Your task to perform on an android device: open a bookmark in the chrome app Image 0: 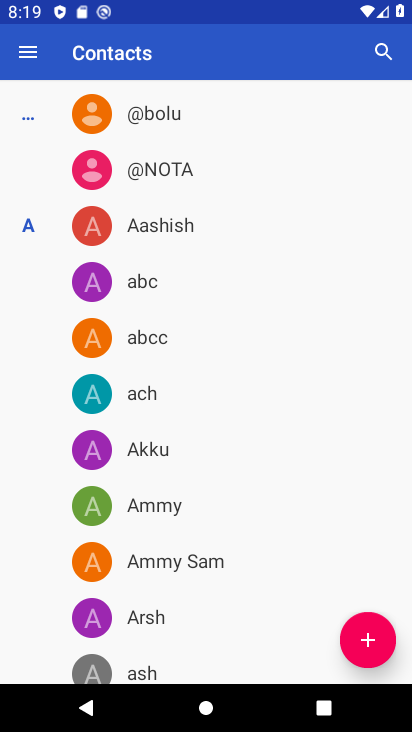
Step 0: press home button
Your task to perform on an android device: open a bookmark in the chrome app Image 1: 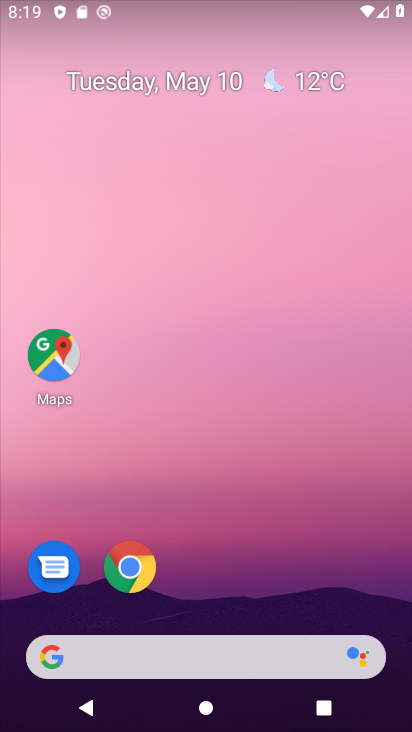
Step 1: click (127, 564)
Your task to perform on an android device: open a bookmark in the chrome app Image 2: 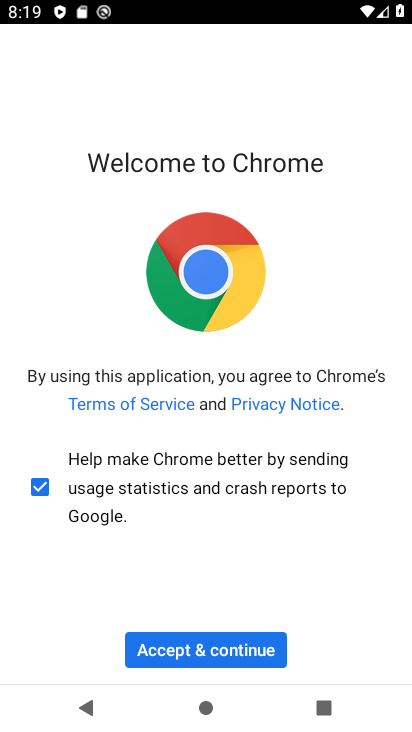
Step 2: click (147, 656)
Your task to perform on an android device: open a bookmark in the chrome app Image 3: 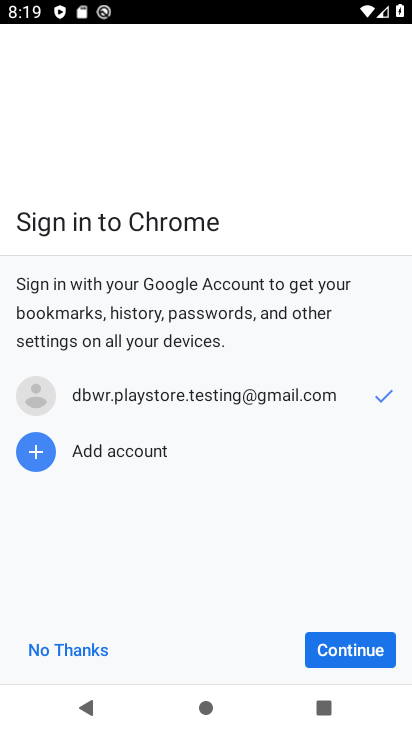
Step 3: click (370, 634)
Your task to perform on an android device: open a bookmark in the chrome app Image 4: 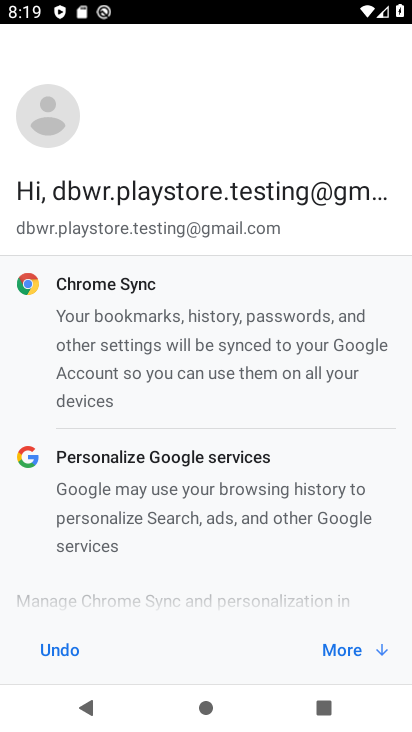
Step 4: click (358, 654)
Your task to perform on an android device: open a bookmark in the chrome app Image 5: 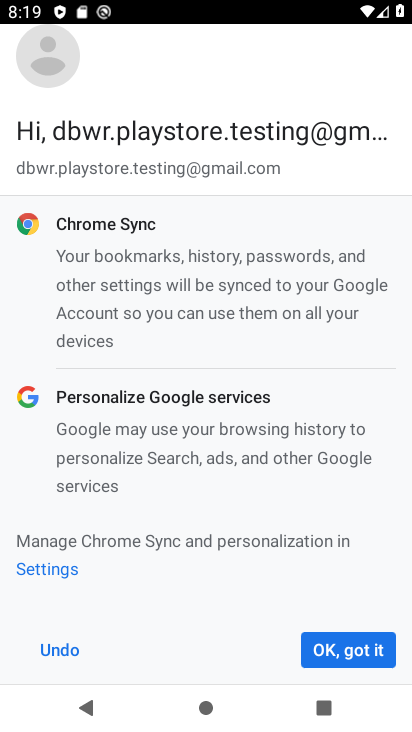
Step 5: click (358, 654)
Your task to perform on an android device: open a bookmark in the chrome app Image 6: 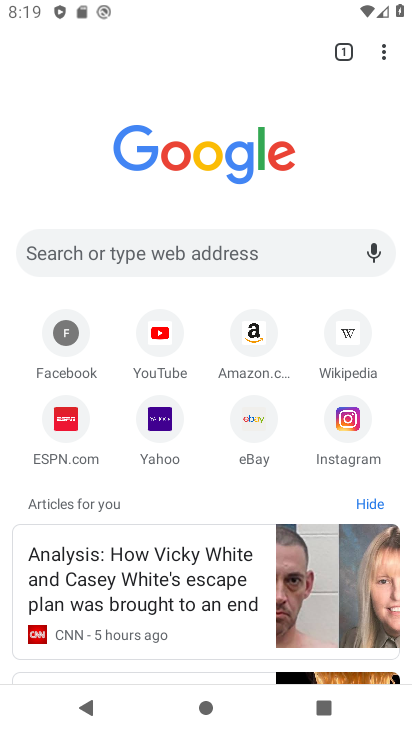
Step 6: click (387, 51)
Your task to perform on an android device: open a bookmark in the chrome app Image 7: 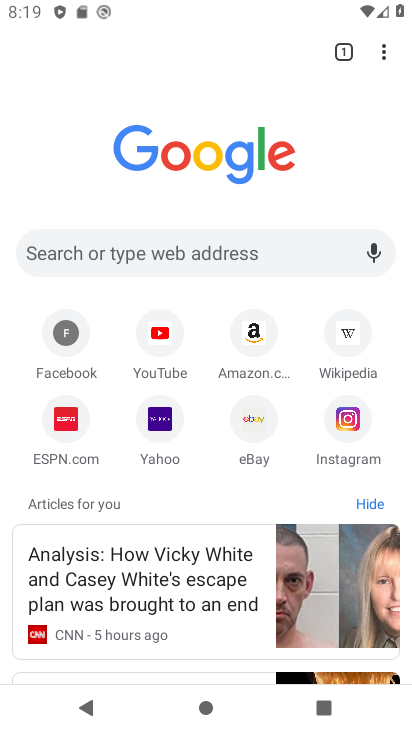
Step 7: click (387, 51)
Your task to perform on an android device: open a bookmark in the chrome app Image 8: 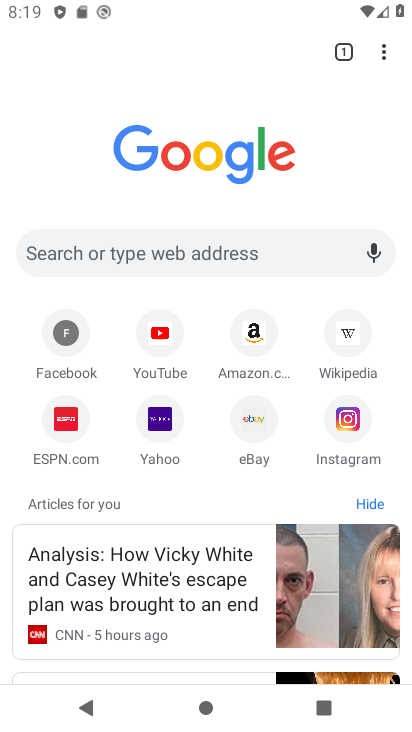
Step 8: click (387, 51)
Your task to perform on an android device: open a bookmark in the chrome app Image 9: 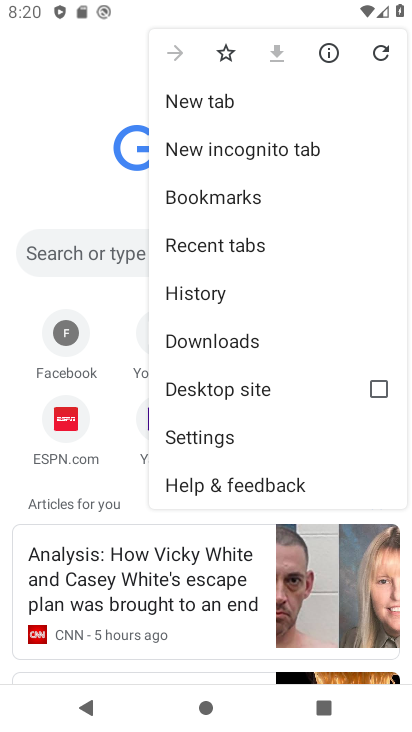
Step 9: click (202, 197)
Your task to perform on an android device: open a bookmark in the chrome app Image 10: 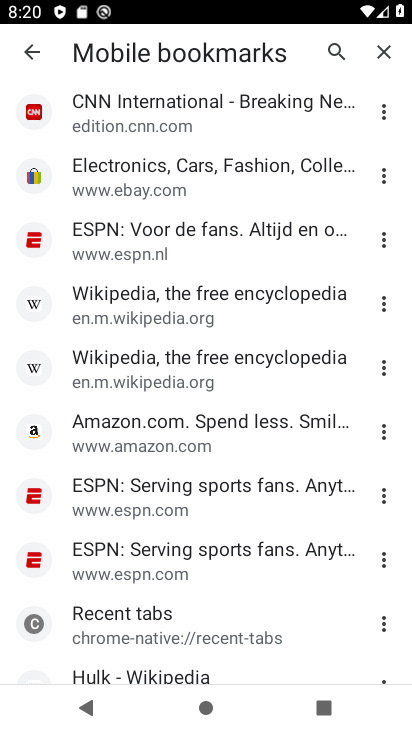
Step 10: task complete